Your task to perform on an android device: Search for the best rated mechanical keyboard on Amazon. Image 0: 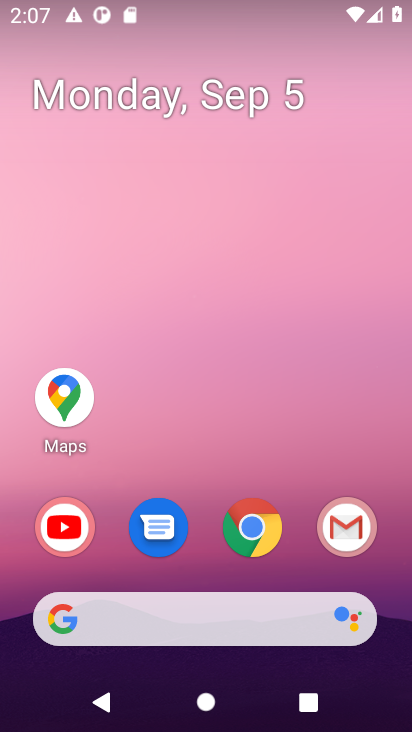
Step 0: click (262, 529)
Your task to perform on an android device: Search for the best rated mechanical keyboard on Amazon. Image 1: 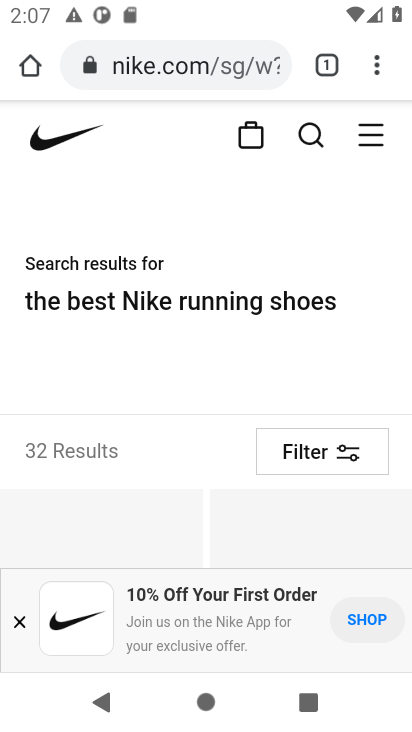
Step 1: click (172, 69)
Your task to perform on an android device: Search for the best rated mechanical keyboard on Amazon. Image 2: 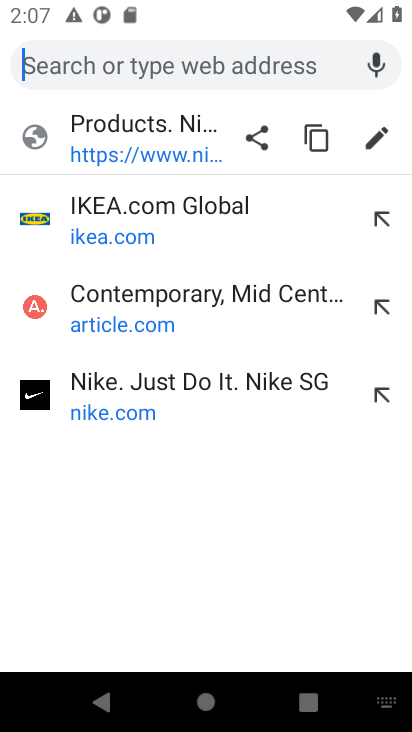
Step 2: type "Amazon"
Your task to perform on an android device: Search for the best rated mechanical keyboard on Amazon. Image 3: 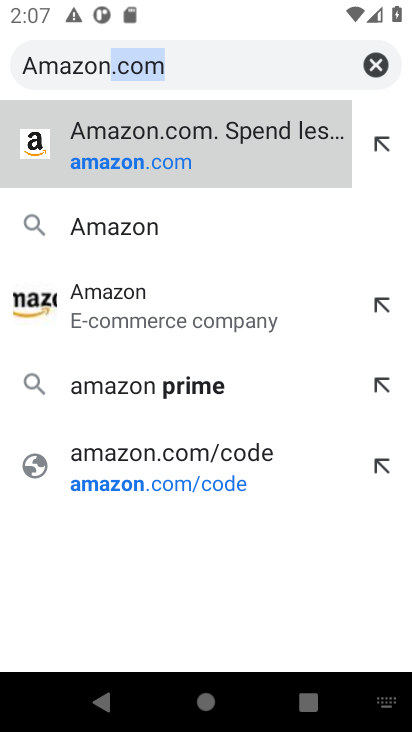
Step 3: click (252, 163)
Your task to perform on an android device: Search for the best rated mechanical keyboard on Amazon. Image 4: 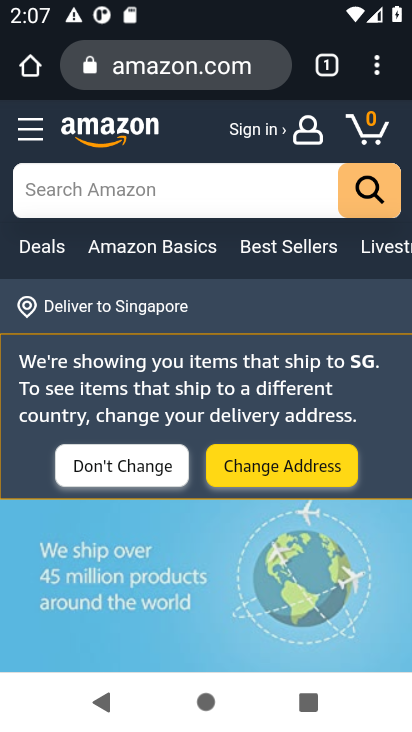
Step 4: click (211, 191)
Your task to perform on an android device: Search for the best rated mechanical keyboard on Amazon. Image 5: 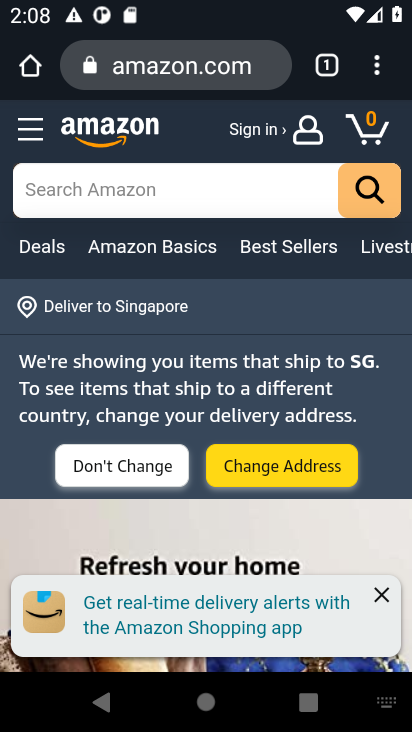
Step 5: type "the best rated mechanical keyboard"
Your task to perform on an android device: Search for the best rated mechanical keyboard on Amazon. Image 6: 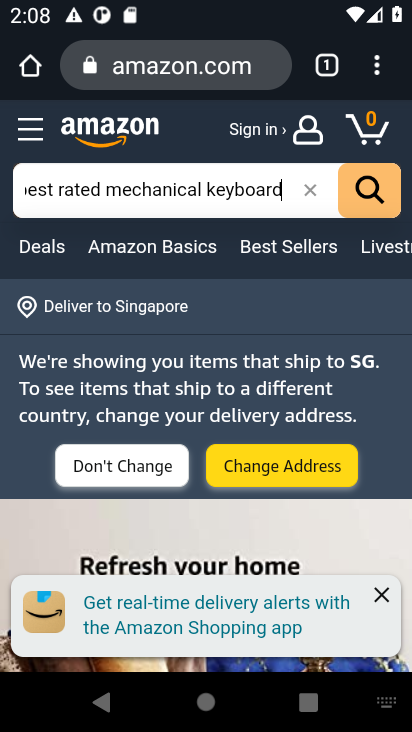
Step 6: click (385, 189)
Your task to perform on an android device: Search for the best rated mechanical keyboard on Amazon. Image 7: 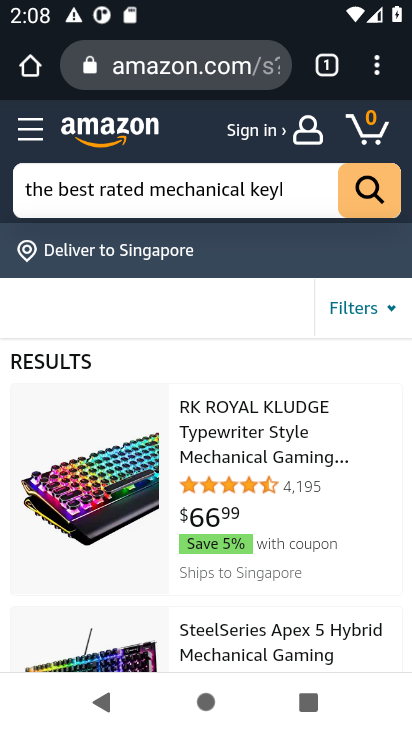
Step 7: task complete